Your task to perform on an android device: Open Chrome and go to settings Image 0: 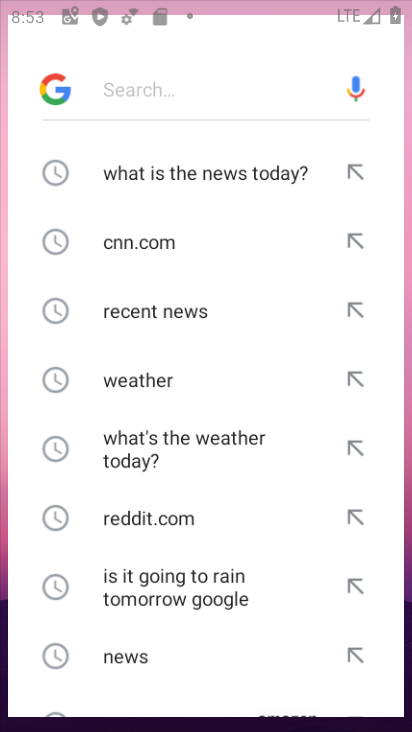
Step 0: press home button
Your task to perform on an android device: Open Chrome and go to settings Image 1: 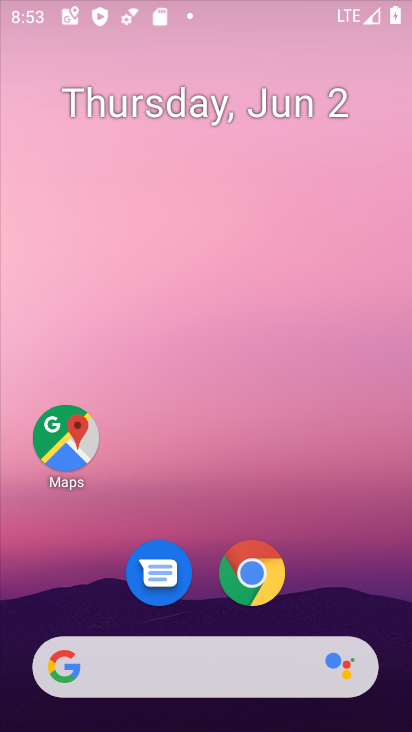
Step 1: click (258, 580)
Your task to perform on an android device: Open Chrome and go to settings Image 2: 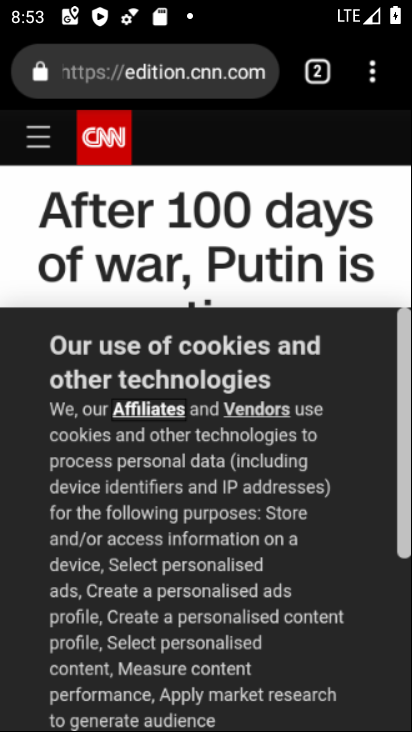
Step 2: task complete